Your task to perform on an android device: Turn off the flashlight Image 0: 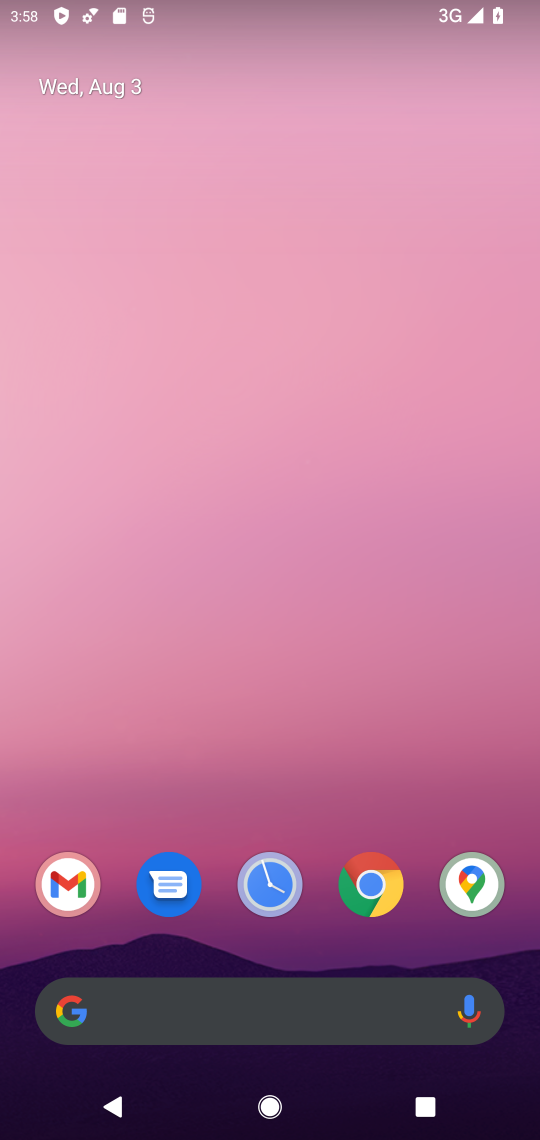
Step 0: drag from (232, 964) to (187, 457)
Your task to perform on an android device: Turn off the flashlight Image 1: 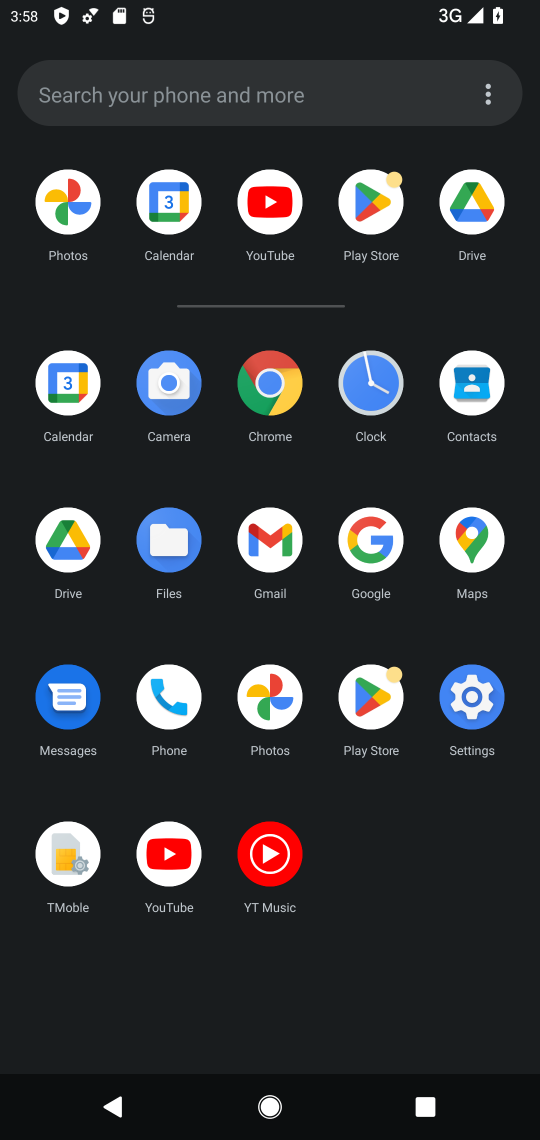
Step 1: click (494, 715)
Your task to perform on an android device: Turn off the flashlight Image 2: 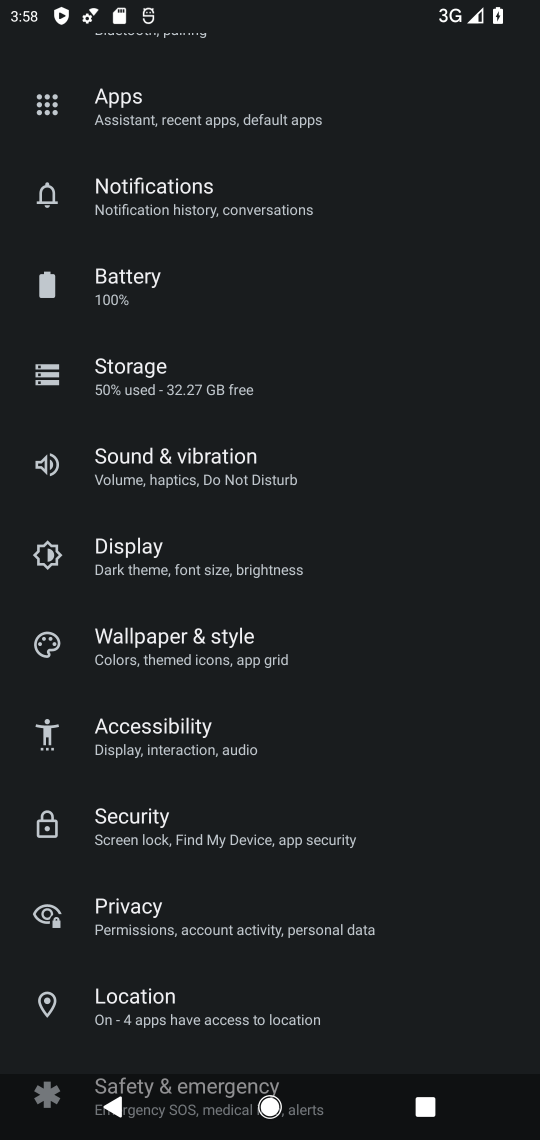
Step 2: task complete